Your task to perform on an android device: turn on translation in the chrome app Image 0: 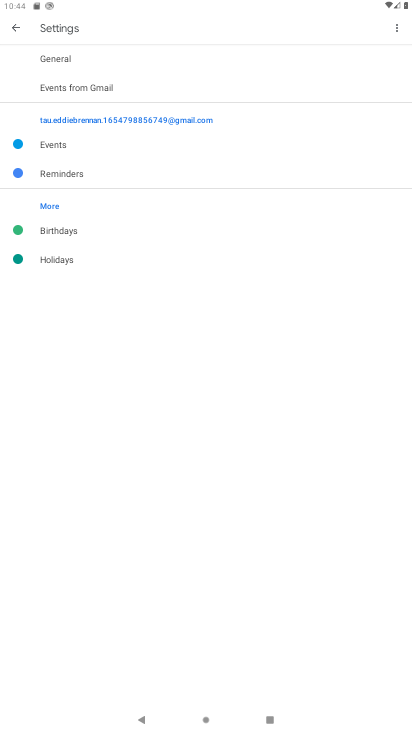
Step 0: press home button
Your task to perform on an android device: turn on translation in the chrome app Image 1: 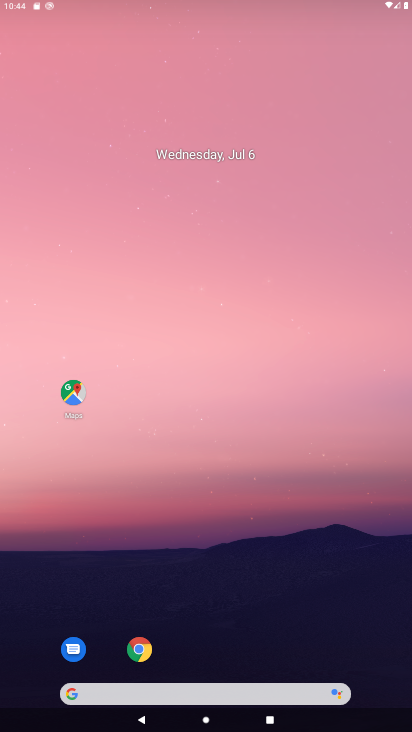
Step 1: drag from (306, 661) to (200, 93)
Your task to perform on an android device: turn on translation in the chrome app Image 2: 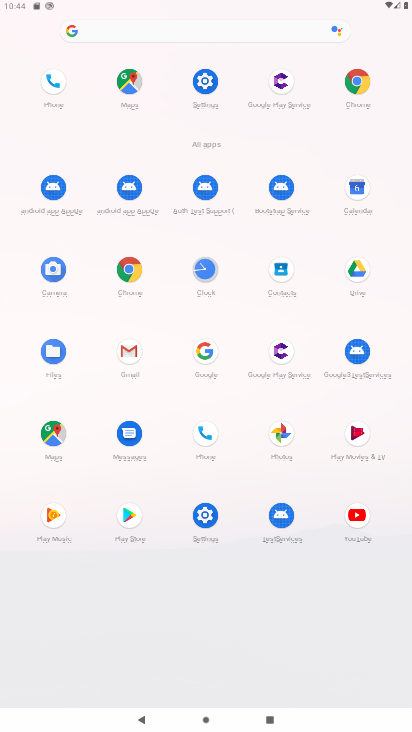
Step 2: click (139, 274)
Your task to perform on an android device: turn on translation in the chrome app Image 3: 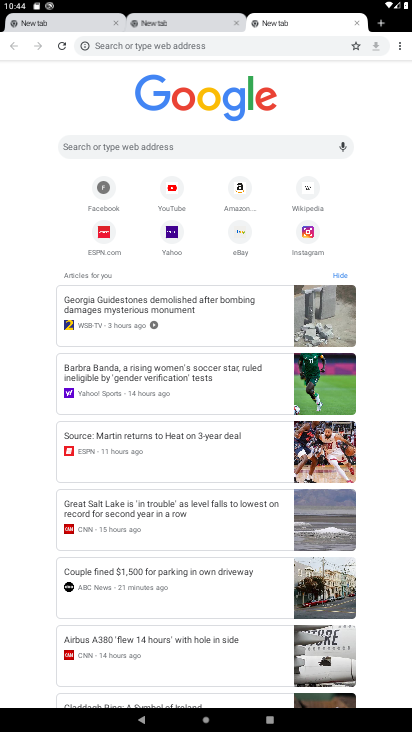
Step 3: click (404, 50)
Your task to perform on an android device: turn on translation in the chrome app Image 4: 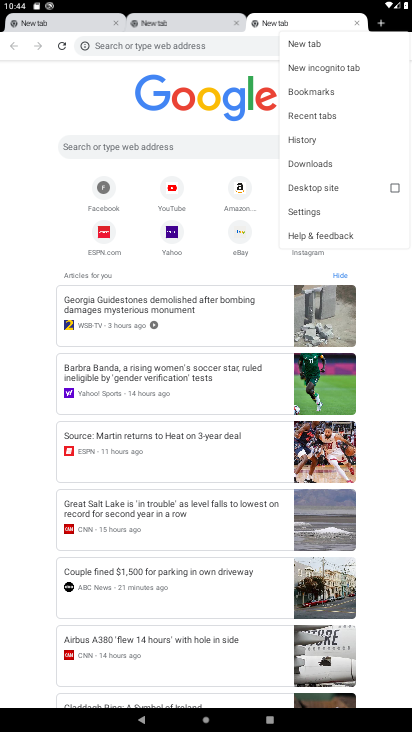
Step 4: click (313, 207)
Your task to perform on an android device: turn on translation in the chrome app Image 5: 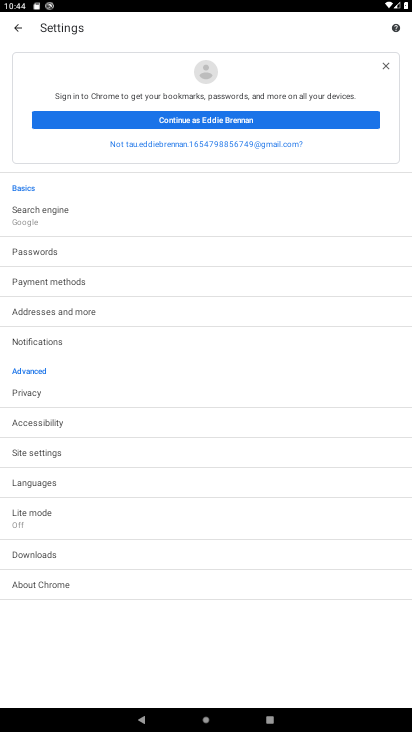
Step 5: click (59, 458)
Your task to perform on an android device: turn on translation in the chrome app Image 6: 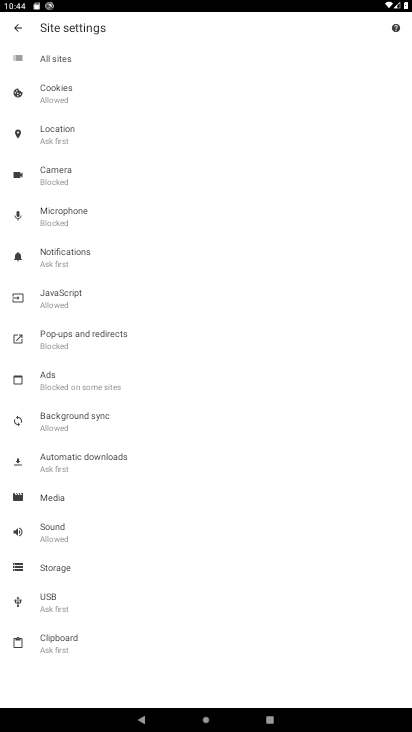
Step 6: press back button
Your task to perform on an android device: turn on translation in the chrome app Image 7: 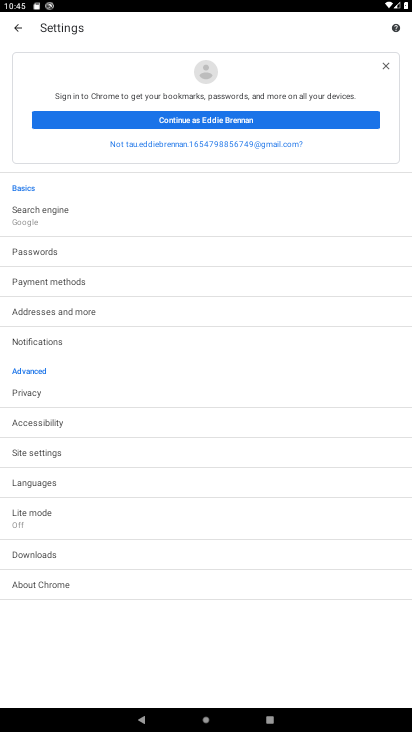
Step 7: click (65, 459)
Your task to perform on an android device: turn on translation in the chrome app Image 8: 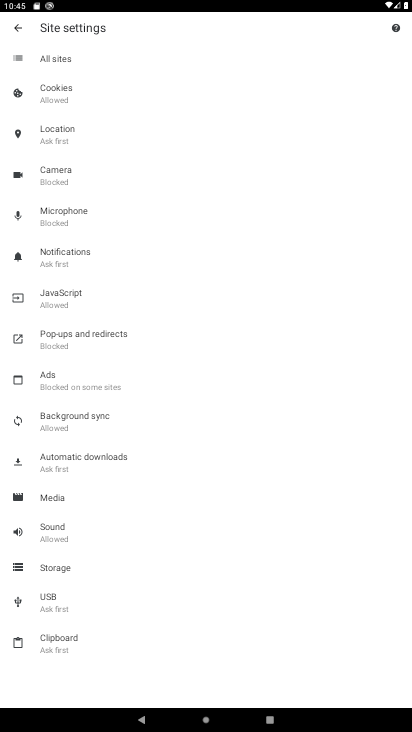
Step 8: press back button
Your task to perform on an android device: turn on translation in the chrome app Image 9: 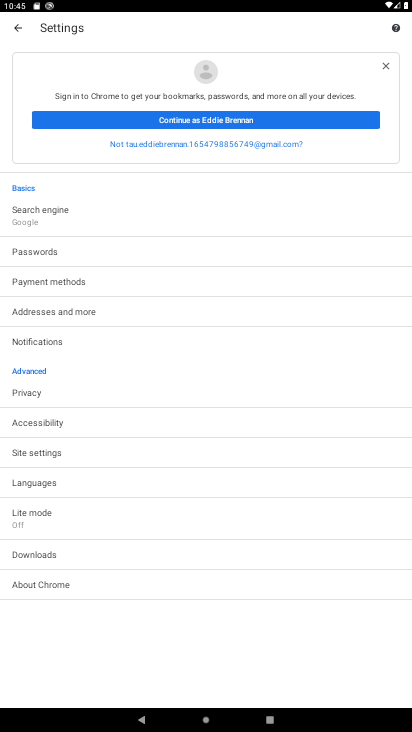
Step 9: click (110, 489)
Your task to perform on an android device: turn on translation in the chrome app Image 10: 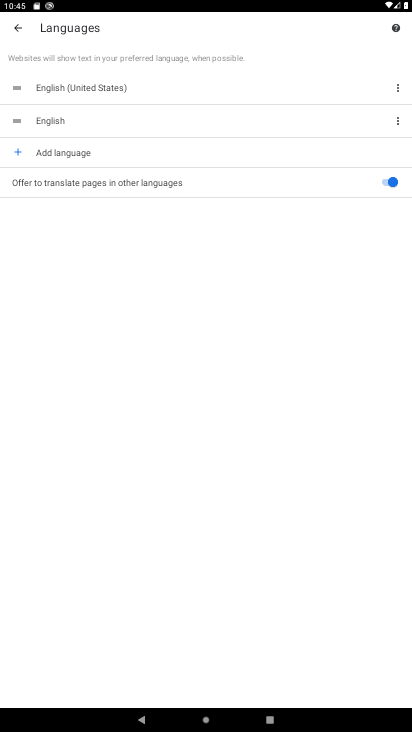
Step 10: task complete